Your task to perform on an android device: delete browsing data in the chrome app Image 0: 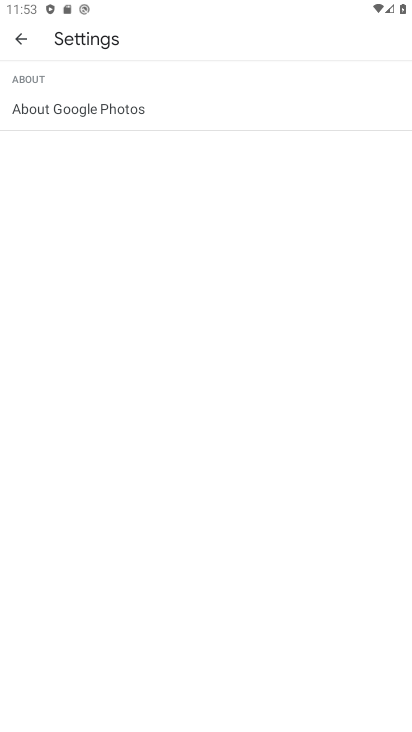
Step 0: press home button
Your task to perform on an android device: delete browsing data in the chrome app Image 1: 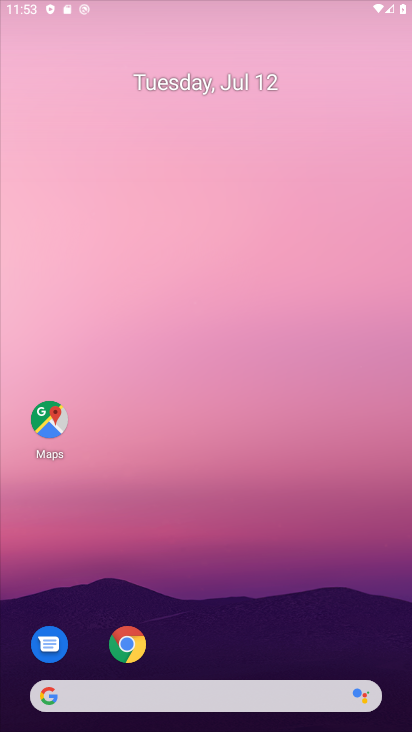
Step 1: drag from (203, 554) to (215, 78)
Your task to perform on an android device: delete browsing data in the chrome app Image 2: 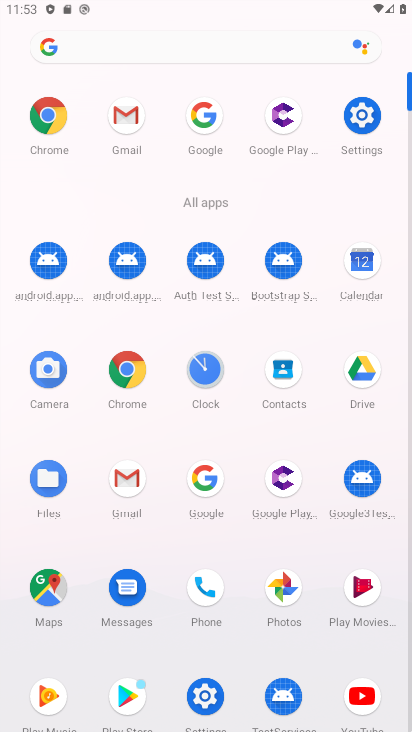
Step 2: click (127, 370)
Your task to perform on an android device: delete browsing data in the chrome app Image 3: 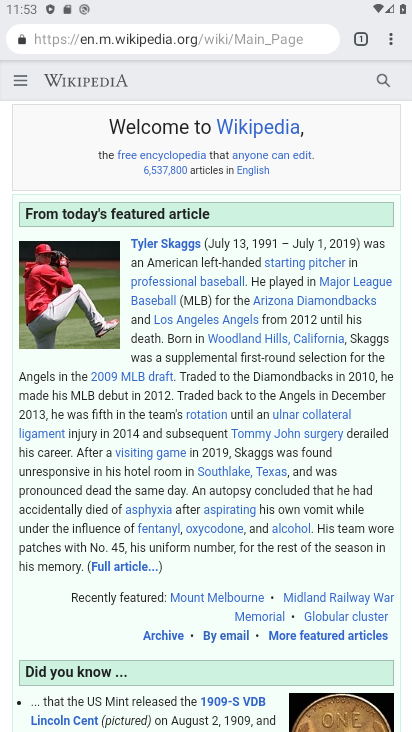
Step 3: click (384, 39)
Your task to perform on an android device: delete browsing data in the chrome app Image 4: 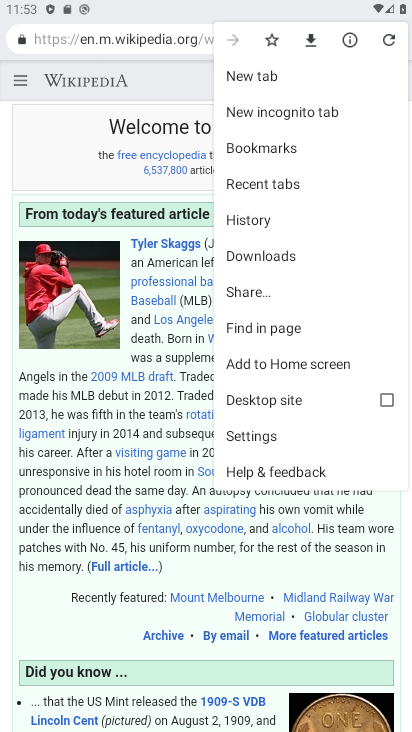
Step 4: click (256, 437)
Your task to perform on an android device: delete browsing data in the chrome app Image 5: 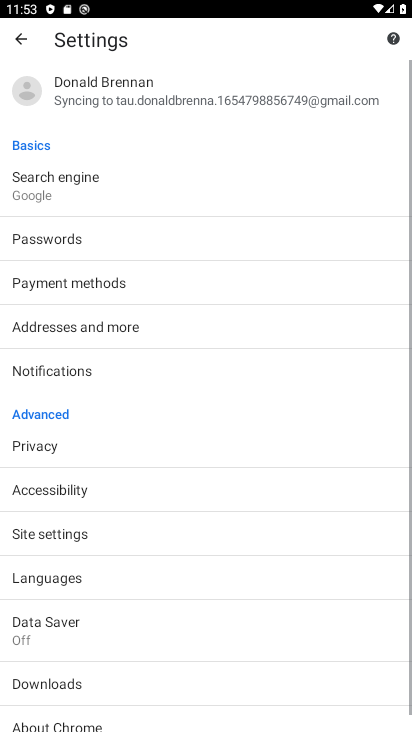
Step 5: click (52, 448)
Your task to perform on an android device: delete browsing data in the chrome app Image 6: 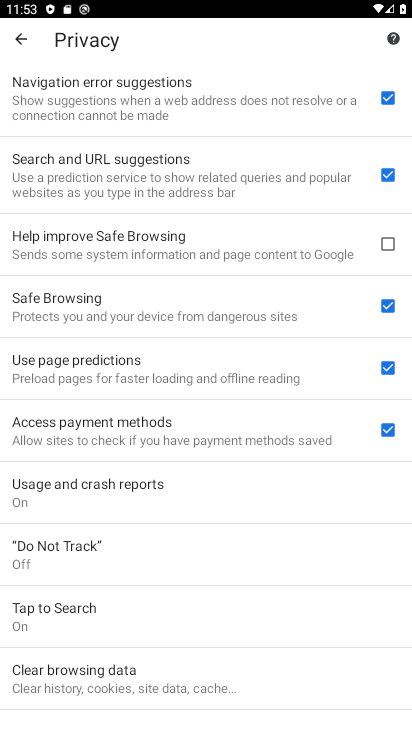
Step 6: click (97, 700)
Your task to perform on an android device: delete browsing data in the chrome app Image 7: 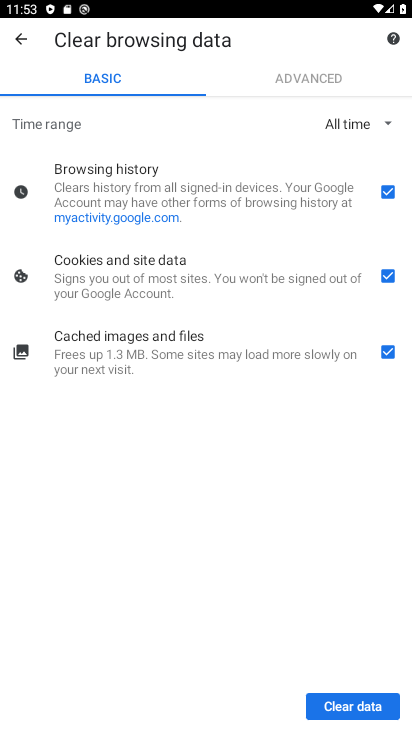
Step 7: click (323, 710)
Your task to perform on an android device: delete browsing data in the chrome app Image 8: 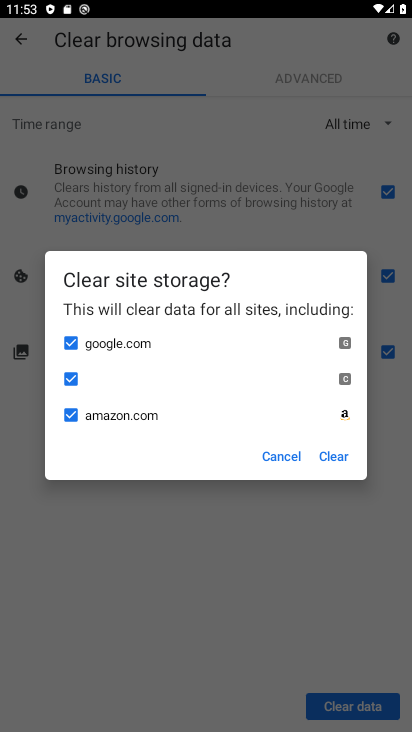
Step 8: click (323, 458)
Your task to perform on an android device: delete browsing data in the chrome app Image 9: 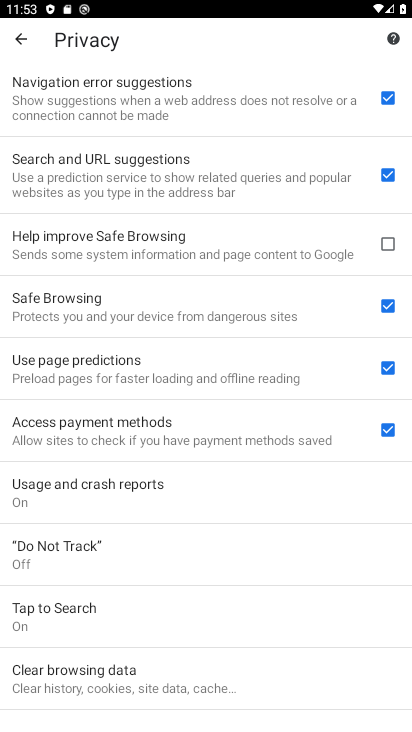
Step 9: task complete